Your task to perform on an android device: snooze an email in the gmail app Image 0: 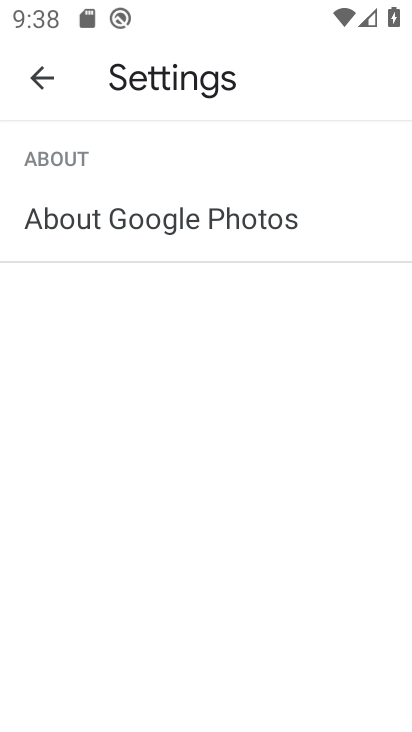
Step 0: press home button
Your task to perform on an android device: snooze an email in the gmail app Image 1: 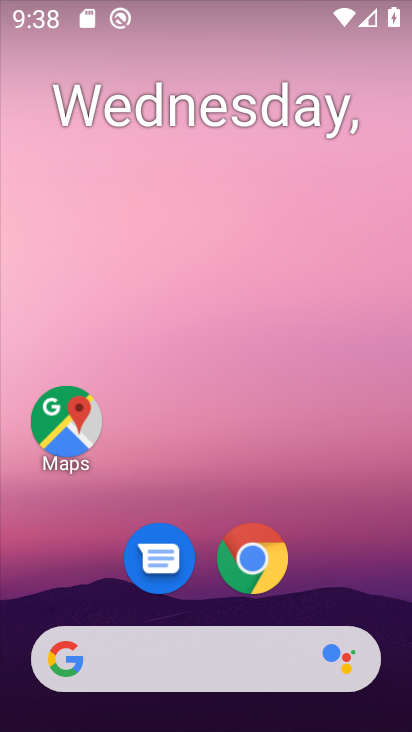
Step 1: drag from (355, 573) to (379, 89)
Your task to perform on an android device: snooze an email in the gmail app Image 2: 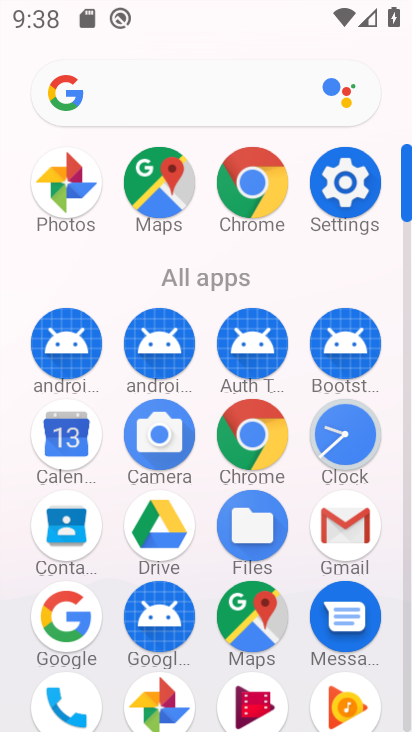
Step 2: click (342, 527)
Your task to perform on an android device: snooze an email in the gmail app Image 3: 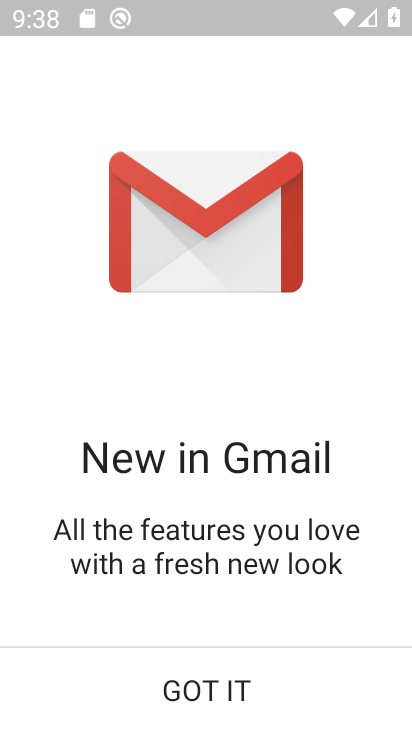
Step 3: click (238, 681)
Your task to perform on an android device: snooze an email in the gmail app Image 4: 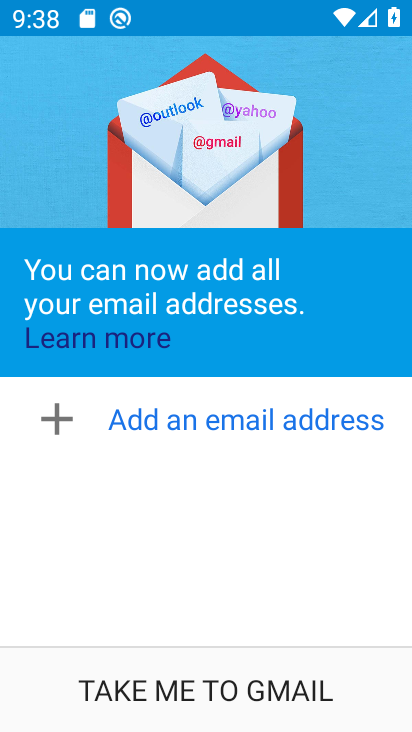
Step 4: click (251, 682)
Your task to perform on an android device: snooze an email in the gmail app Image 5: 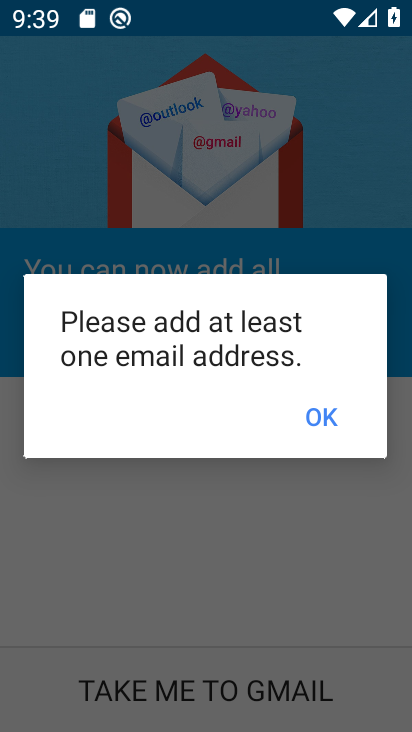
Step 5: task complete